Your task to perform on an android device: check google app version Image 0: 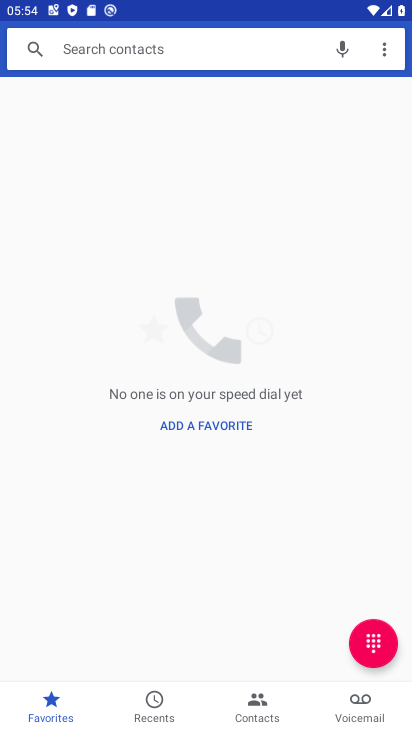
Step 0: press home button
Your task to perform on an android device: check google app version Image 1: 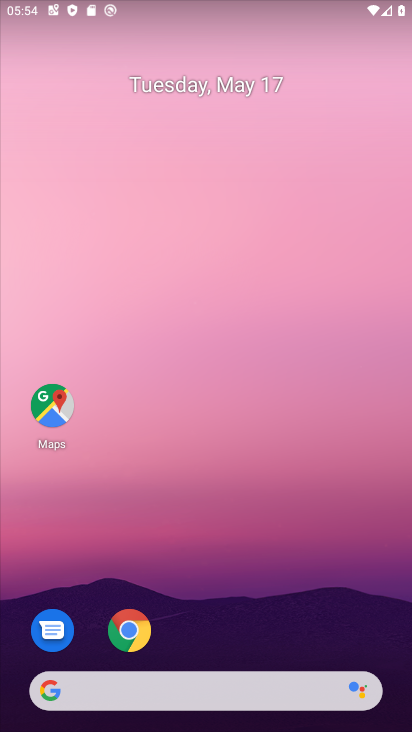
Step 1: drag from (169, 555) to (194, 303)
Your task to perform on an android device: check google app version Image 2: 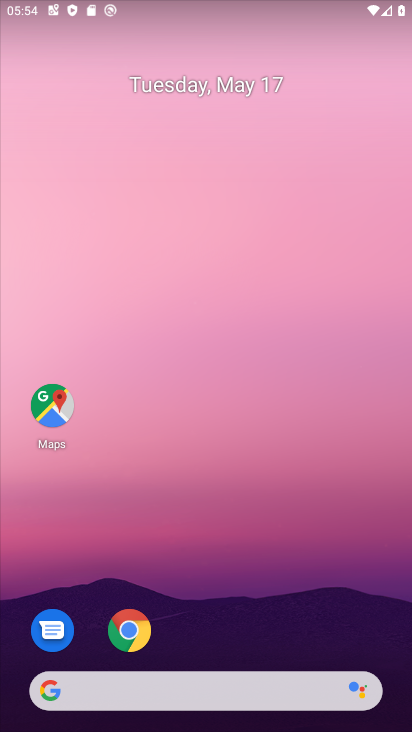
Step 2: drag from (210, 438) to (251, 5)
Your task to perform on an android device: check google app version Image 3: 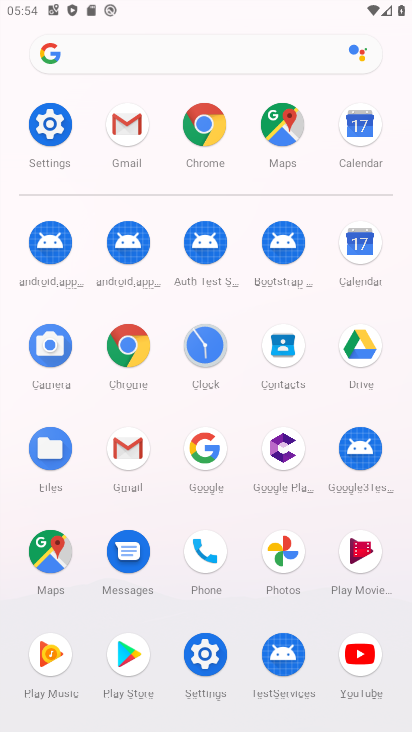
Step 3: click (193, 449)
Your task to perform on an android device: check google app version Image 4: 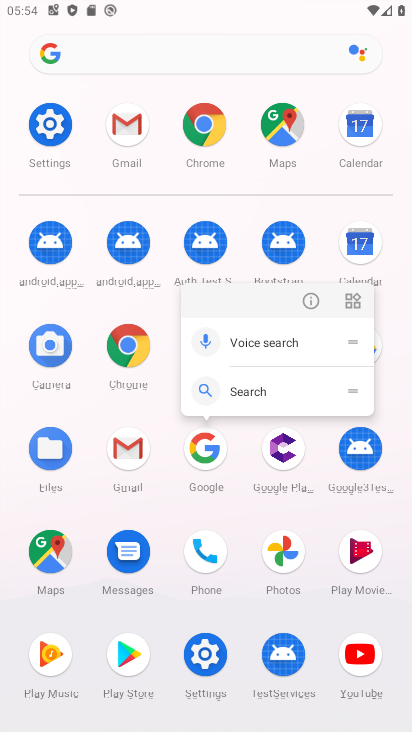
Step 4: click (311, 307)
Your task to perform on an android device: check google app version Image 5: 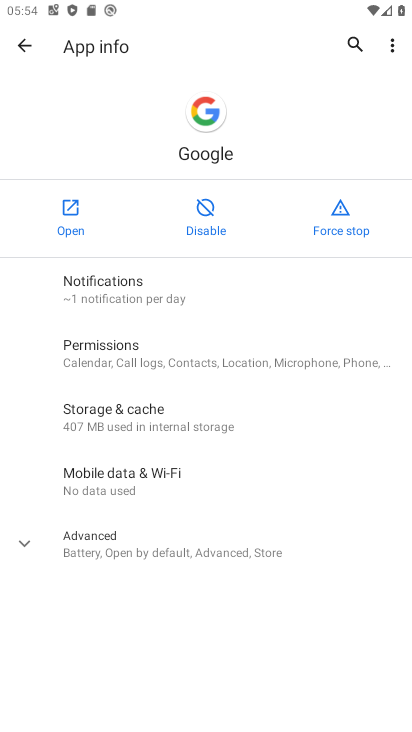
Step 5: click (219, 557)
Your task to perform on an android device: check google app version Image 6: 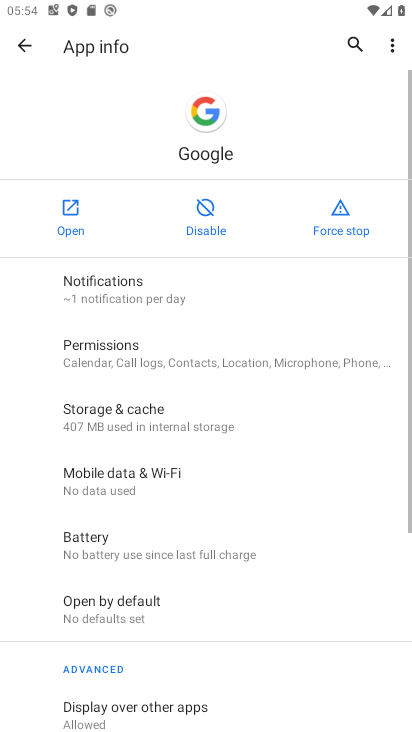
Step 6: task complete